Your task to perform on an android device: Open calendar and show me the first week of next month Image 0: 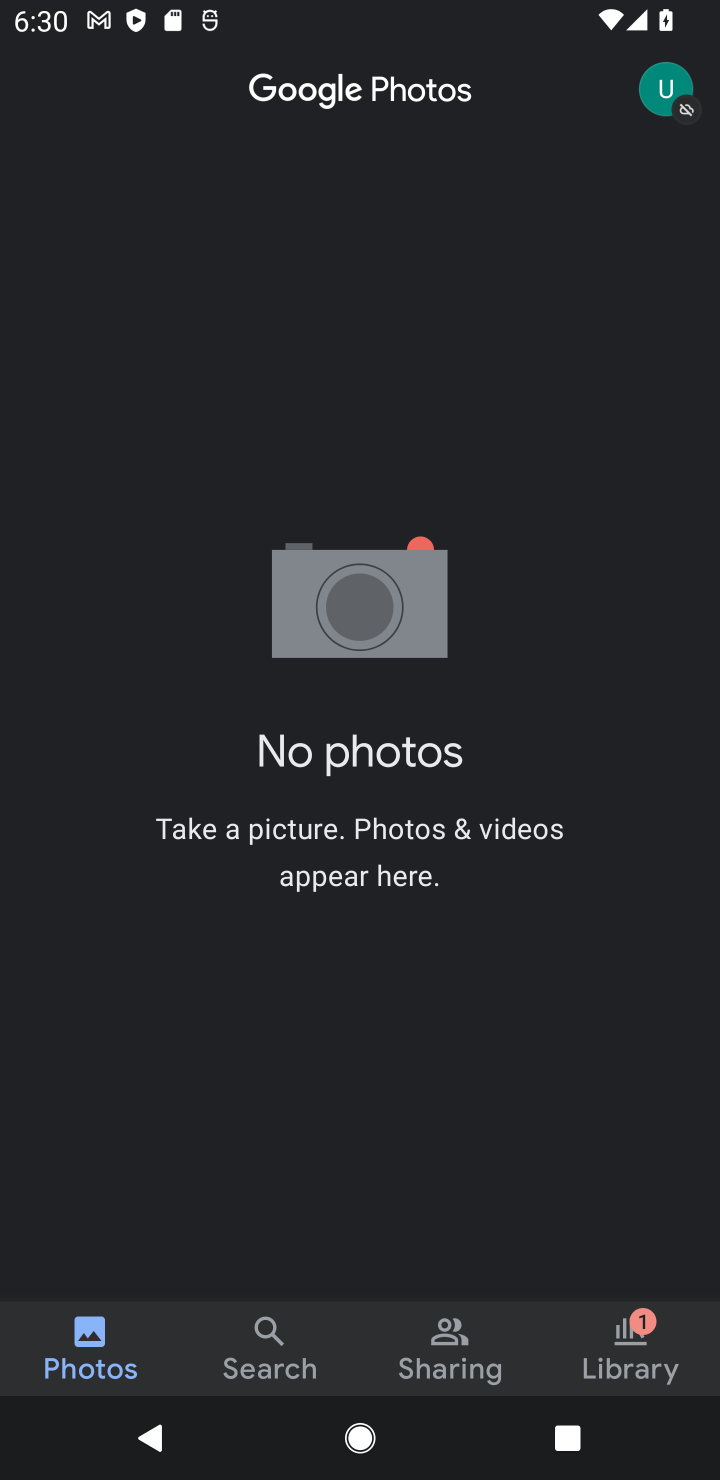
Step 0: task complete